Your task to perform on an android device: Look up the best rated hair dryer on Walmart. Image 0: 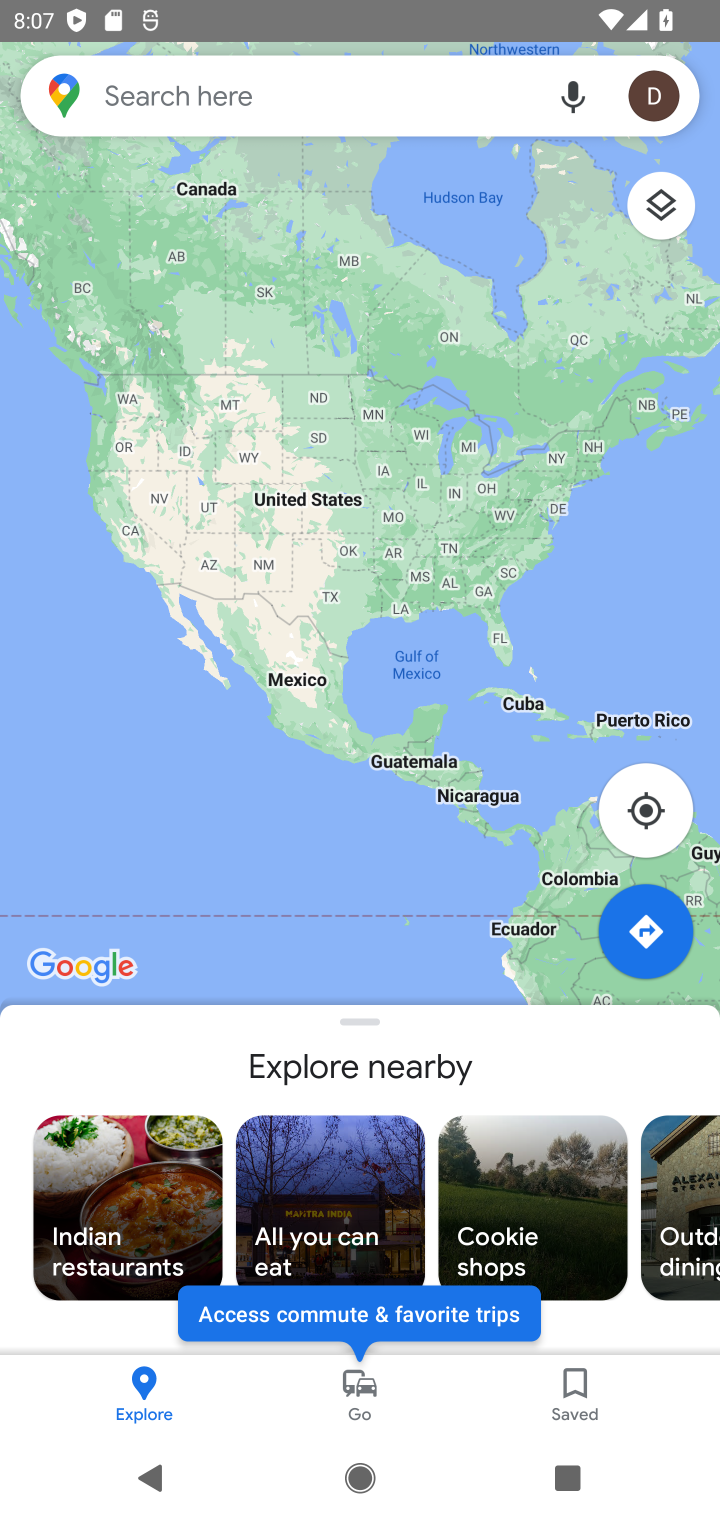
Step 0: press home button
Your task to perform on an android device: Look up the best rated hair dryer on Walmart. Image 1: 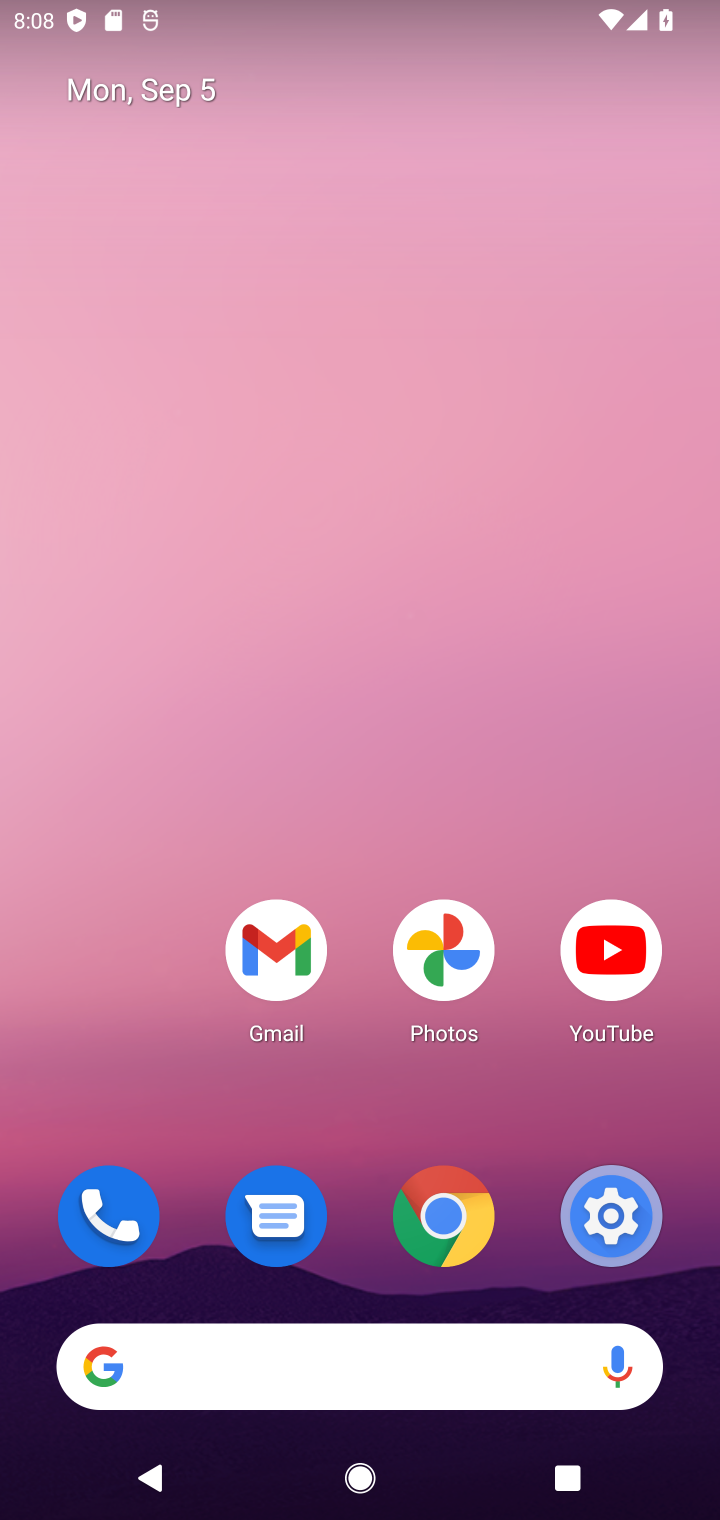
Step 1: click (239, 1355)
Your task to perform on an android device: Look up the best rated hair dryer on Walmart. Image 2: 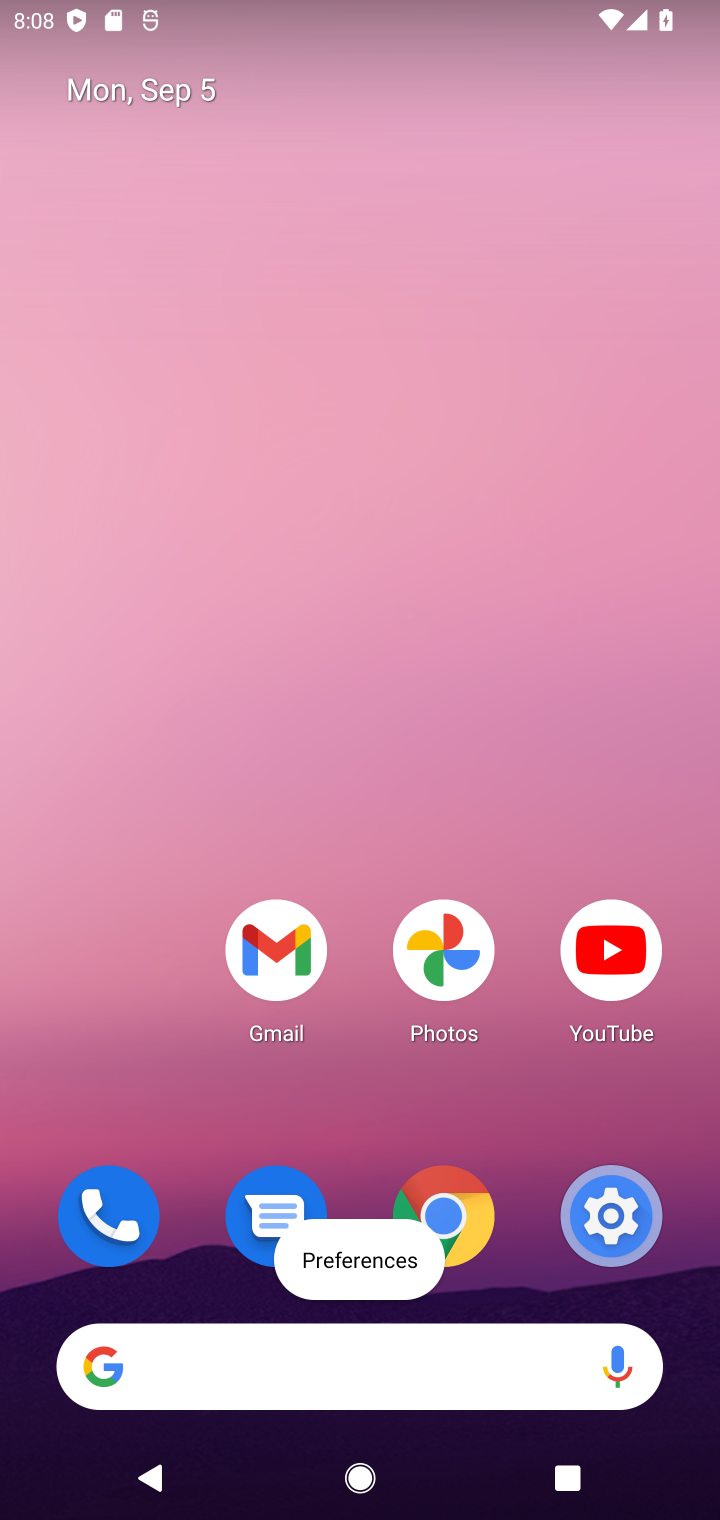
Step 2: click (239, 1355)
Your task to perform on an android device: Look up the best rated hair dryer on Walmart. Image 3: 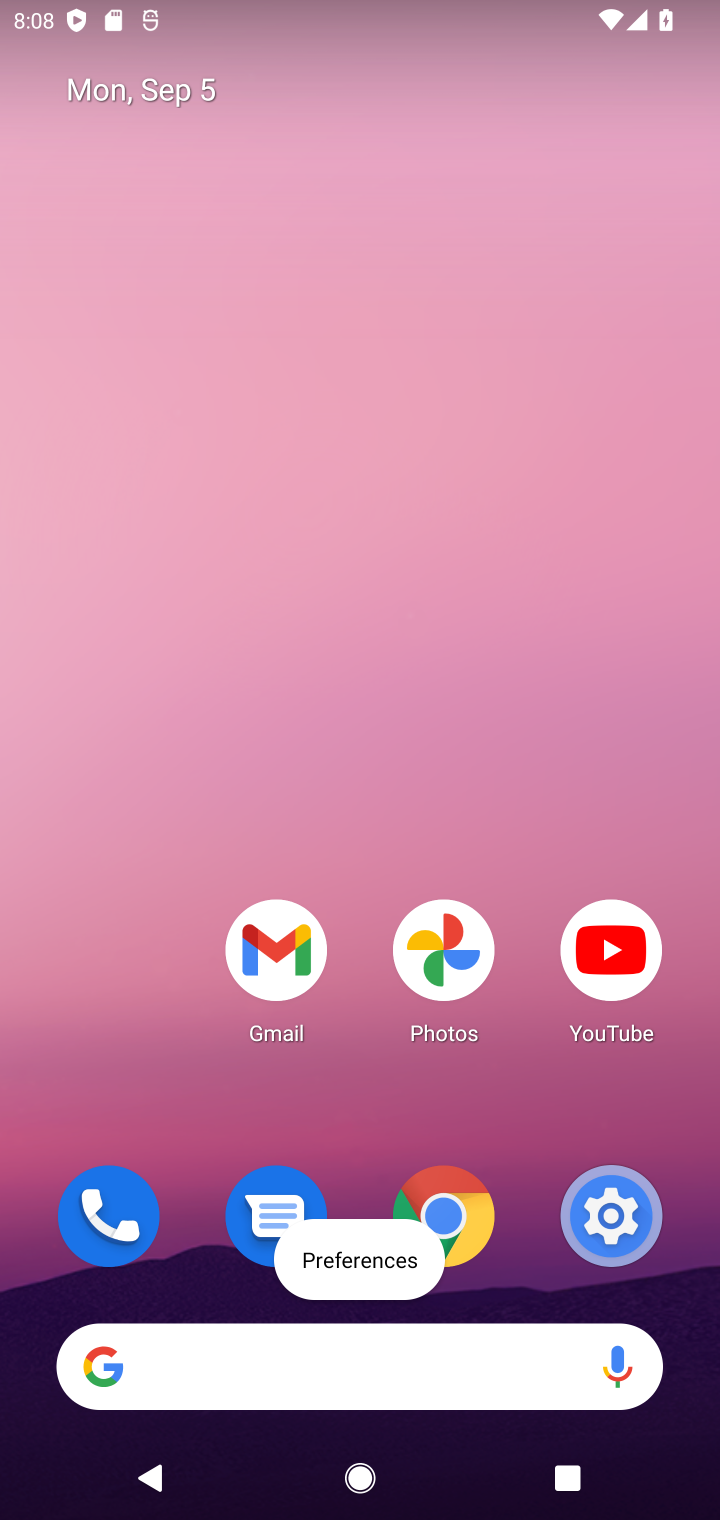
Step 3: click (239, 1355)
Your task to perform on an android device: Look up the best rated hair dryer on Walmart. Image 4: 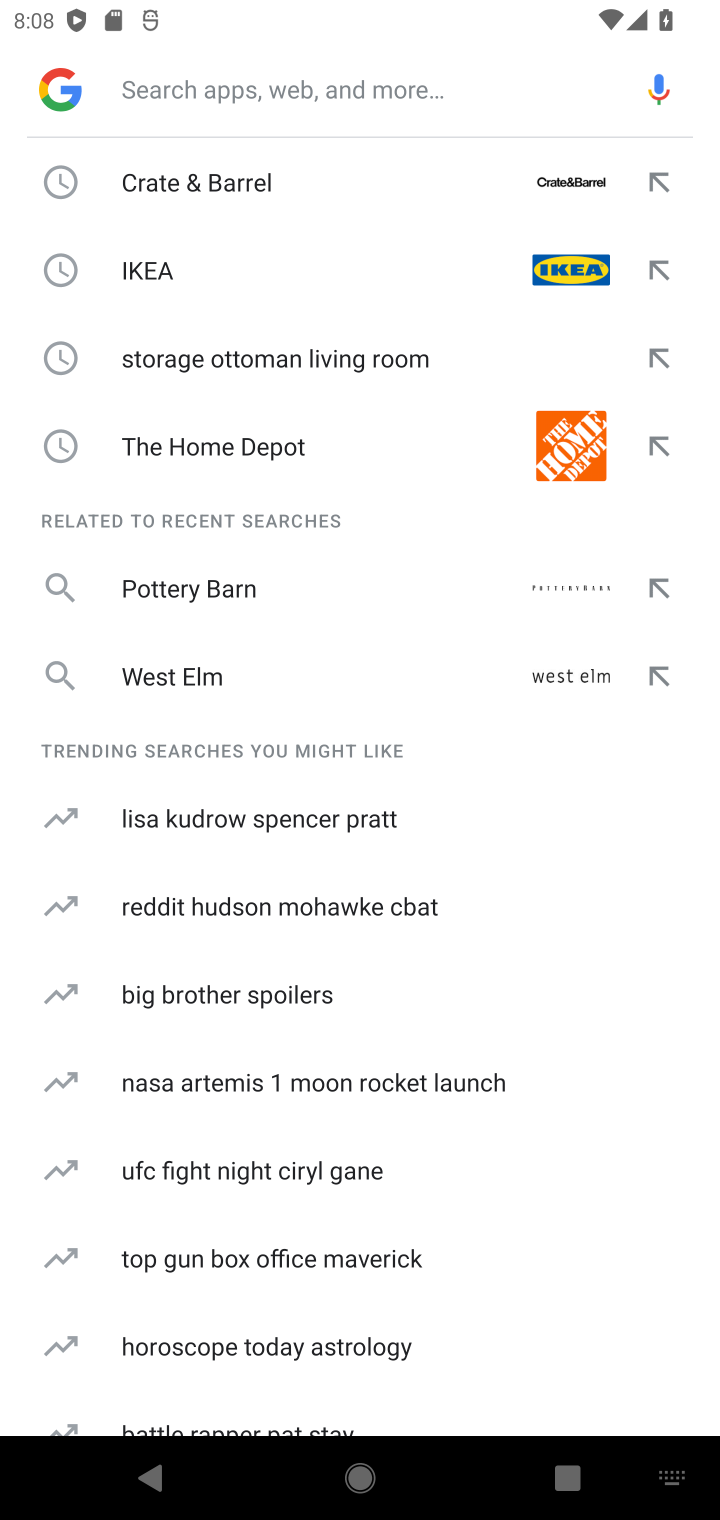
Step 4: click (239, 1355)
Your task to perform on an android device: Look up the best rated hair dryer on Walmart. Image 5: 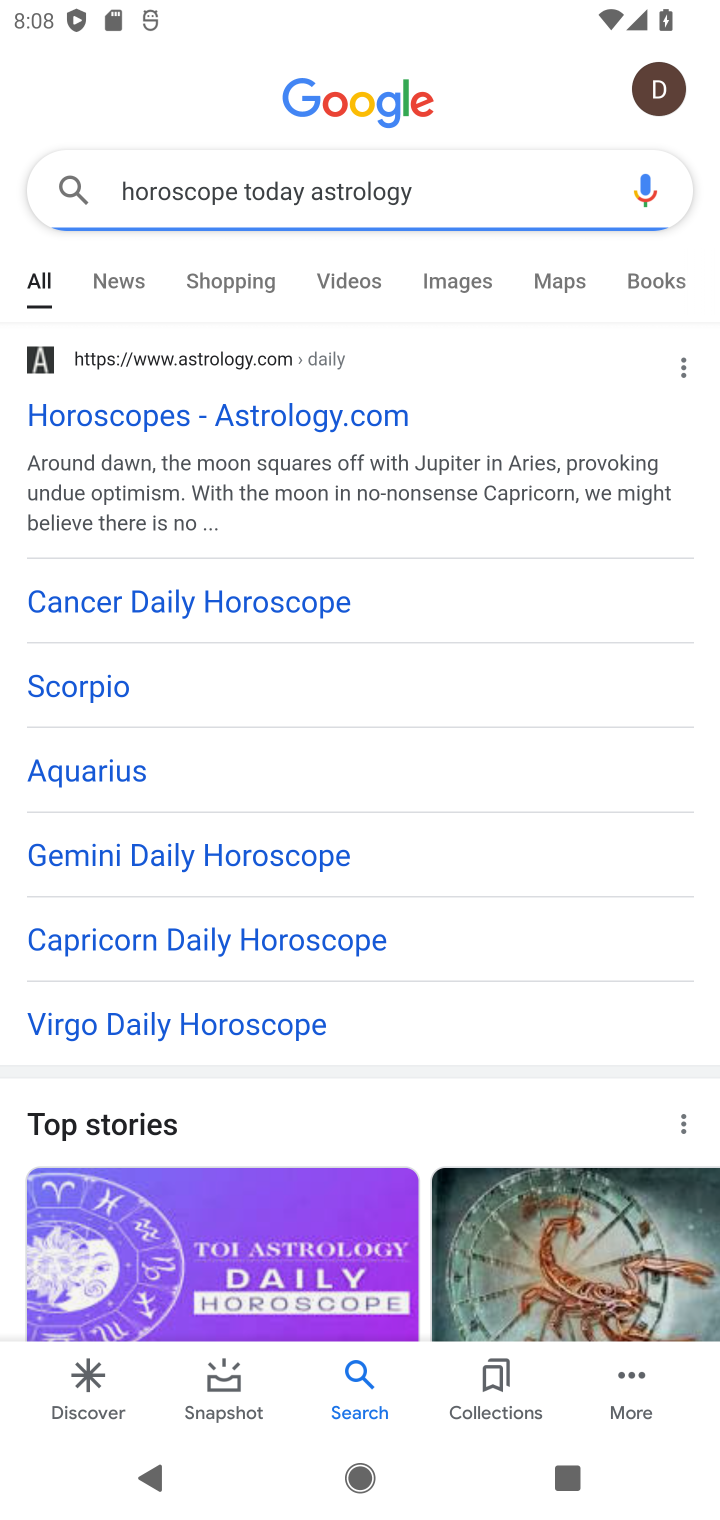
Step 5: click (480, 189)
Your task to perform on an android device: Look up the best rated hair dryer on Walmart. Image 6: 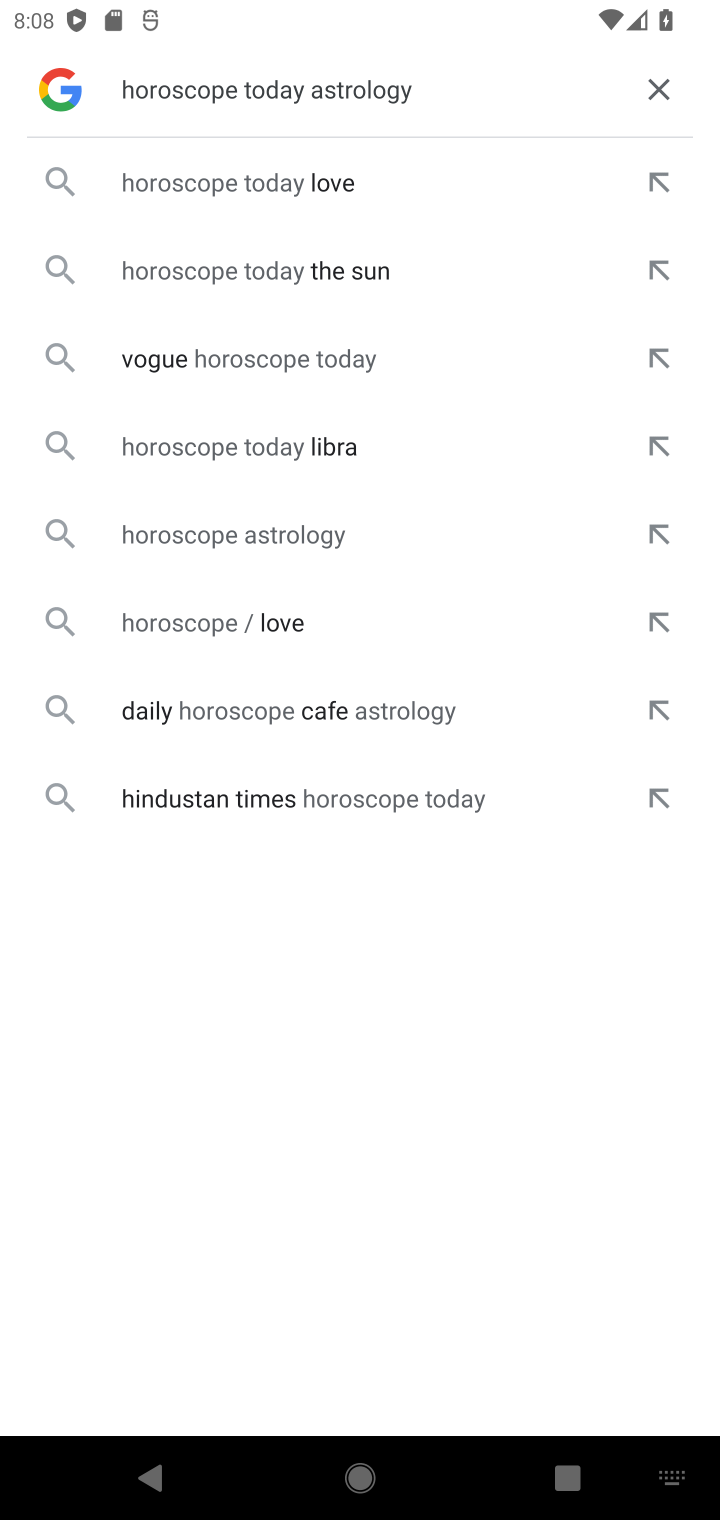
Step 6: click (664, 65)
Your task to perform on an android device: Look up the best rated hair dryer on Walmart. Image 7: 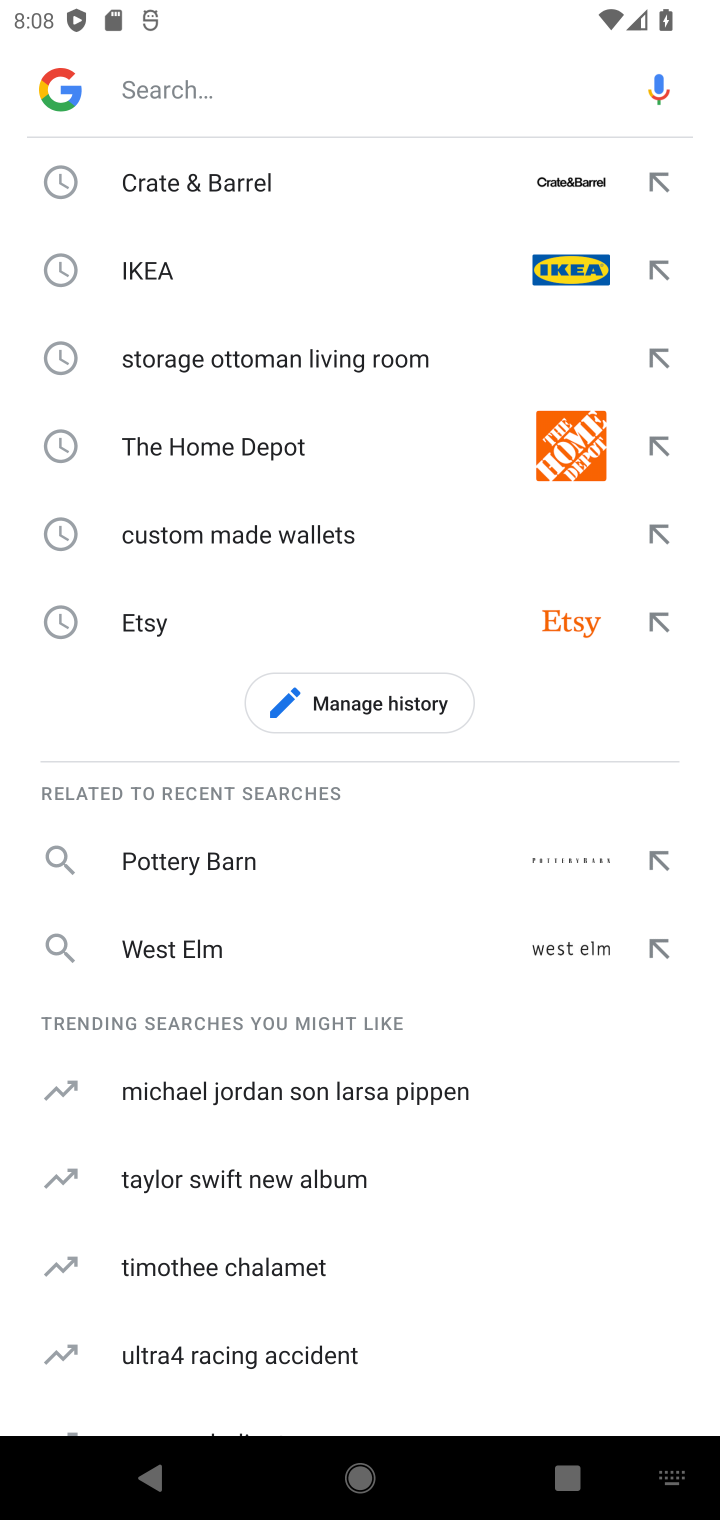
Step 7: type "walmart"
Your task to perform on an android device: Look up the best rated hair dryer on Walmart. Image 8: 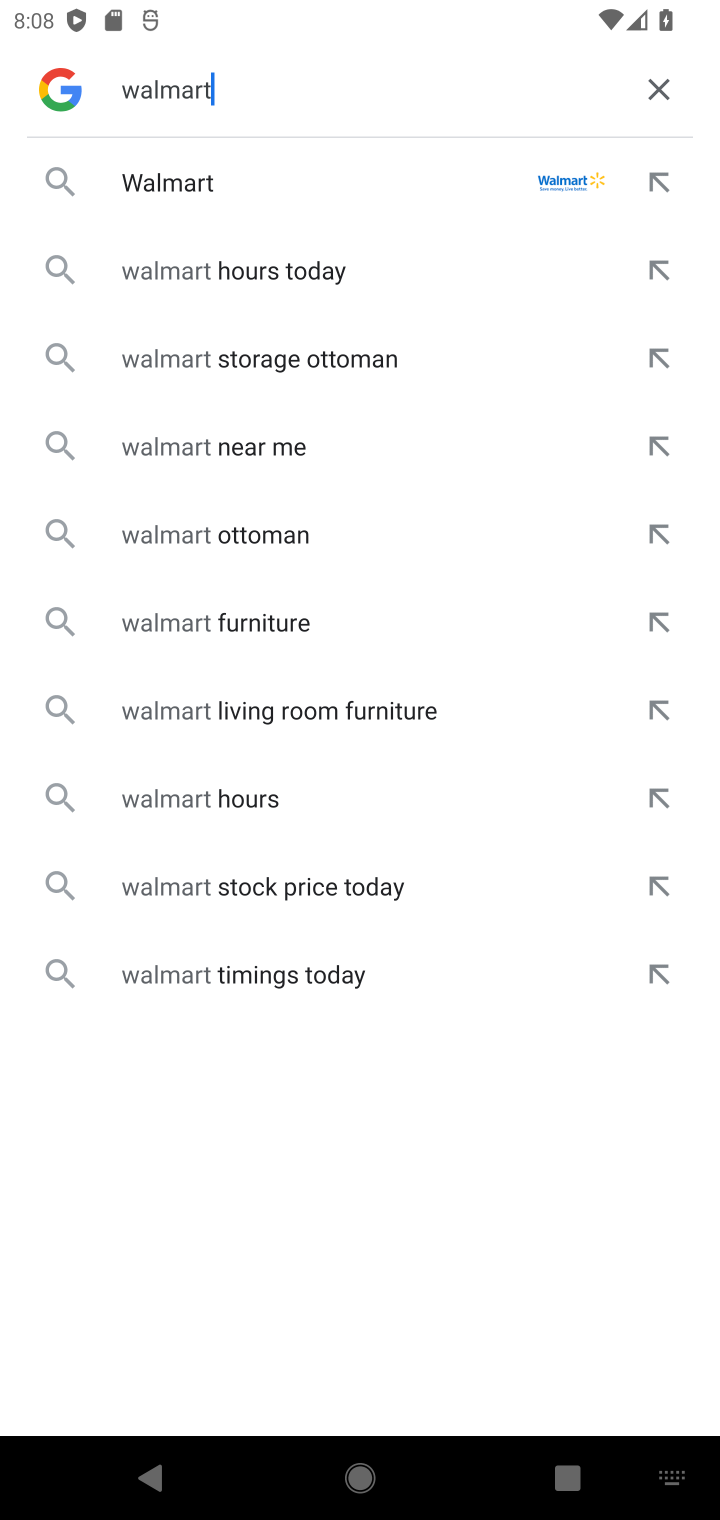
Step 8: click (85, 181)
Your task to perform on an android device: Look up the best rated hair dryer on Walmart. Image 9: 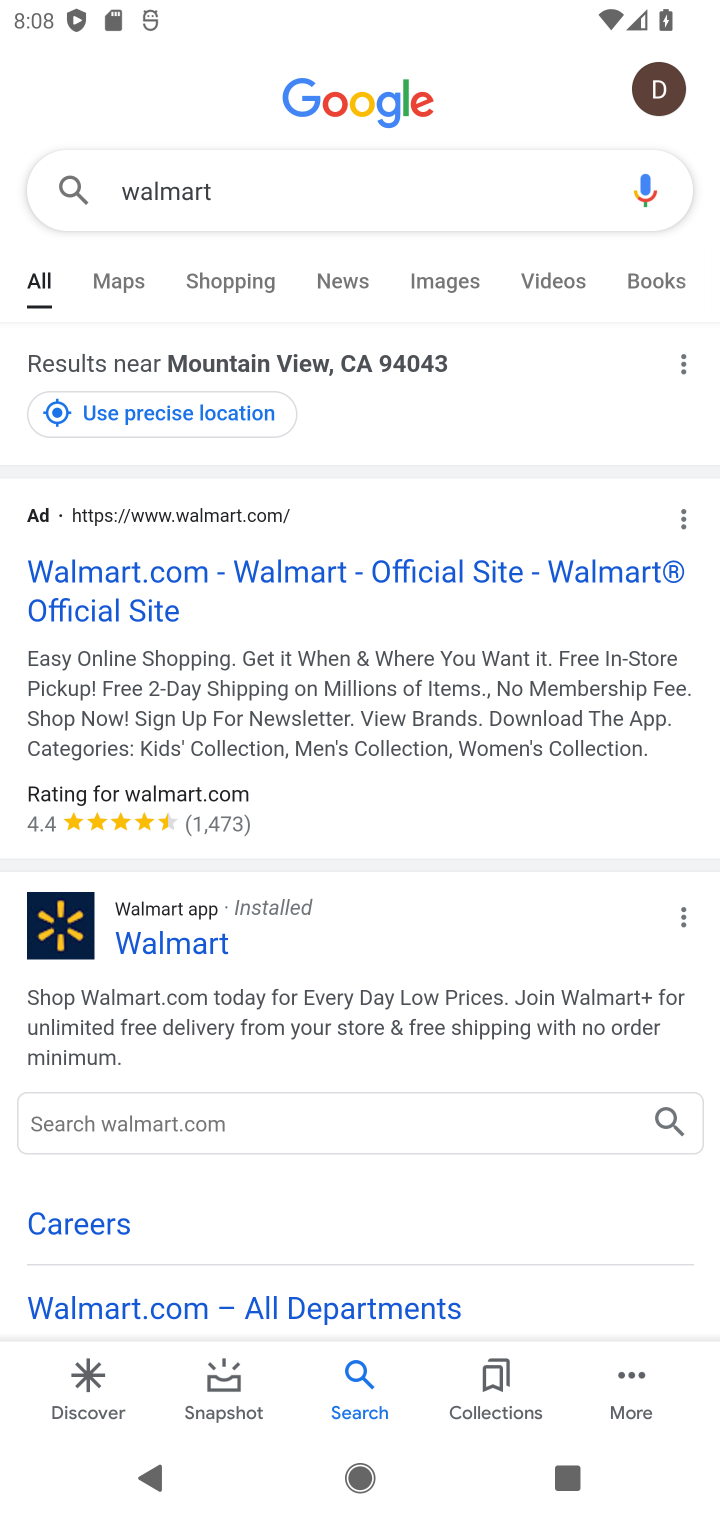
Step 9: click (174, 575)
Your task to perform on an android device: Look up the best rated hair dryer on Walmart. Image 10: 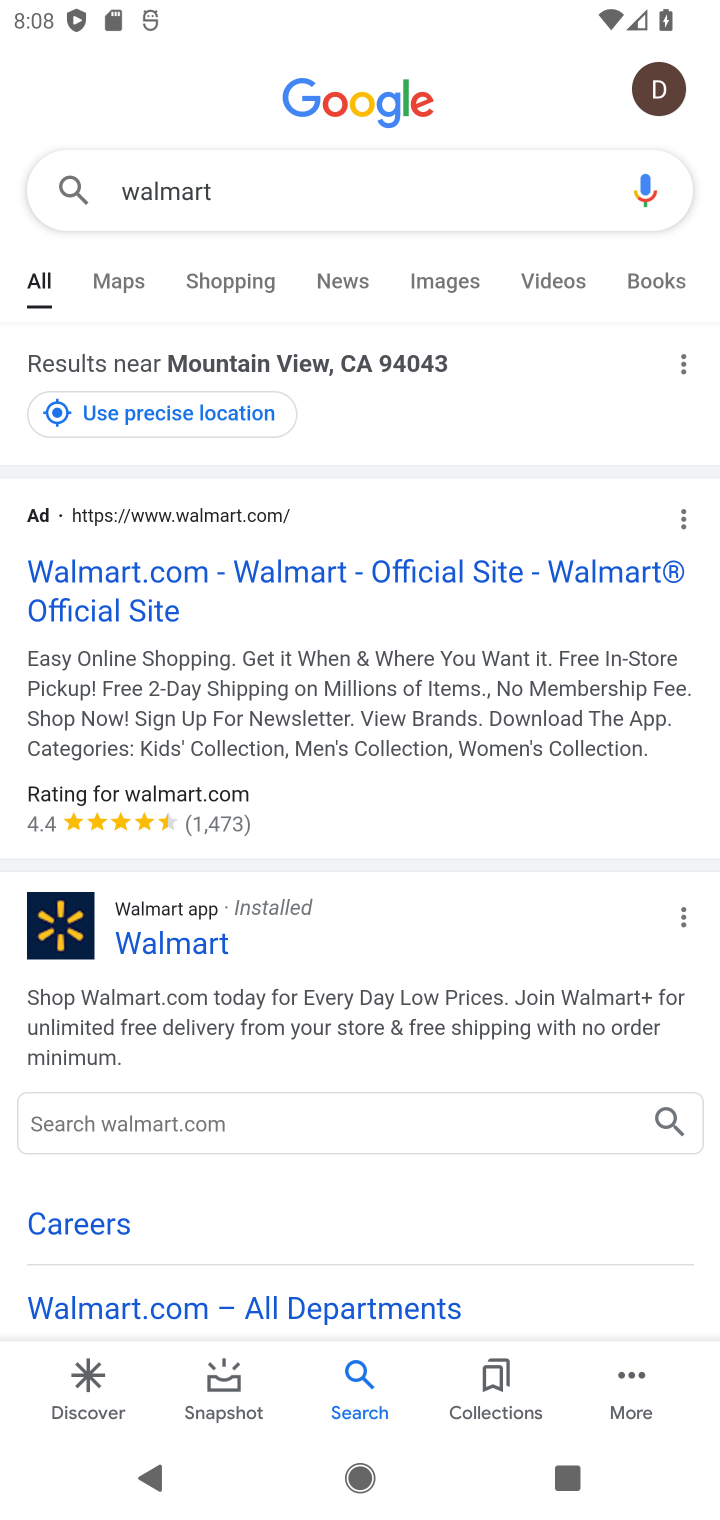
Step 10: click (316, 606)
Your task to perform on an android device: Look up the best rated hair dryer on Walmart. Image 11: 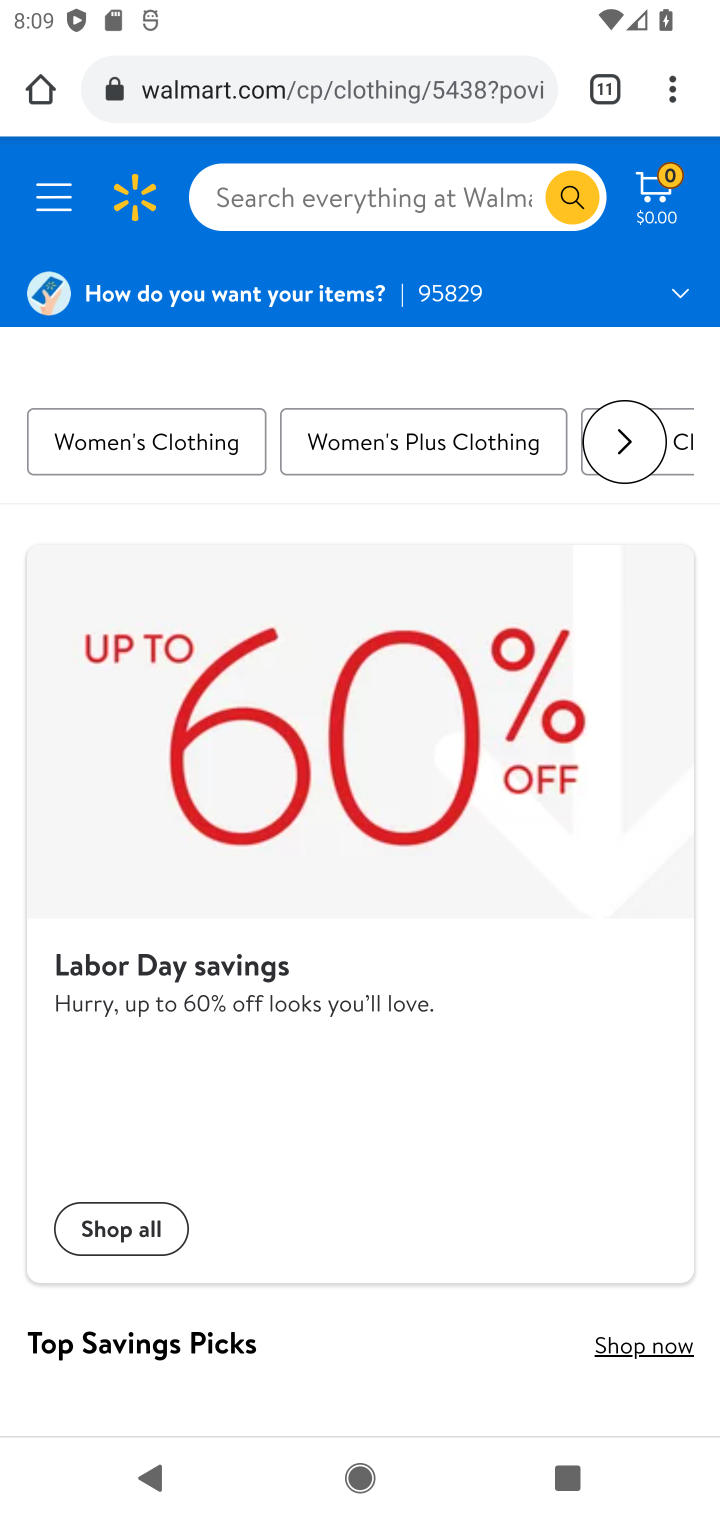
Step 11: click (318, 199)
Your task to perform on an android device: Look up the best rated hair dryer on Walmart. Image 12: 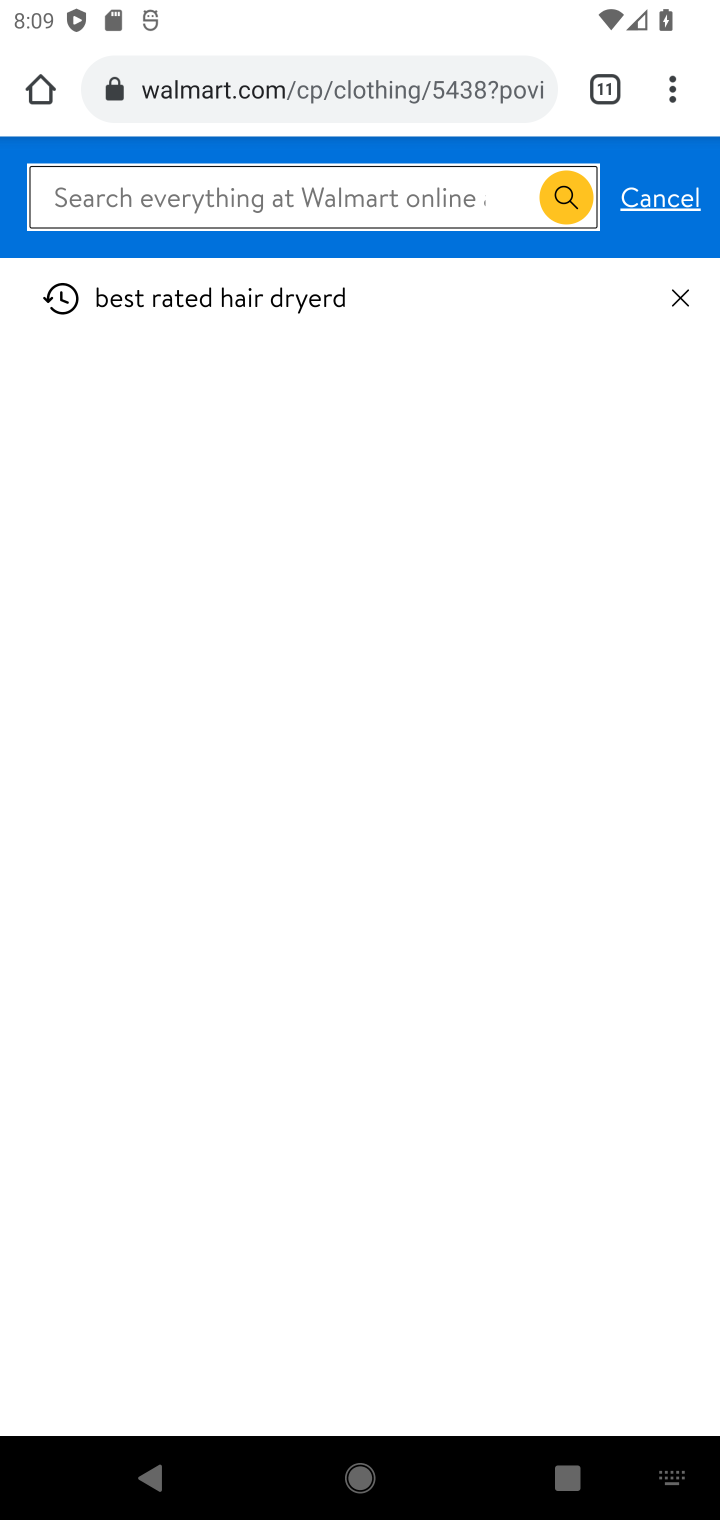
Step 12: type "hair dryer"
Your task to perform on an android device: Look up the best rated hair dryer on Walmart. Image 13: 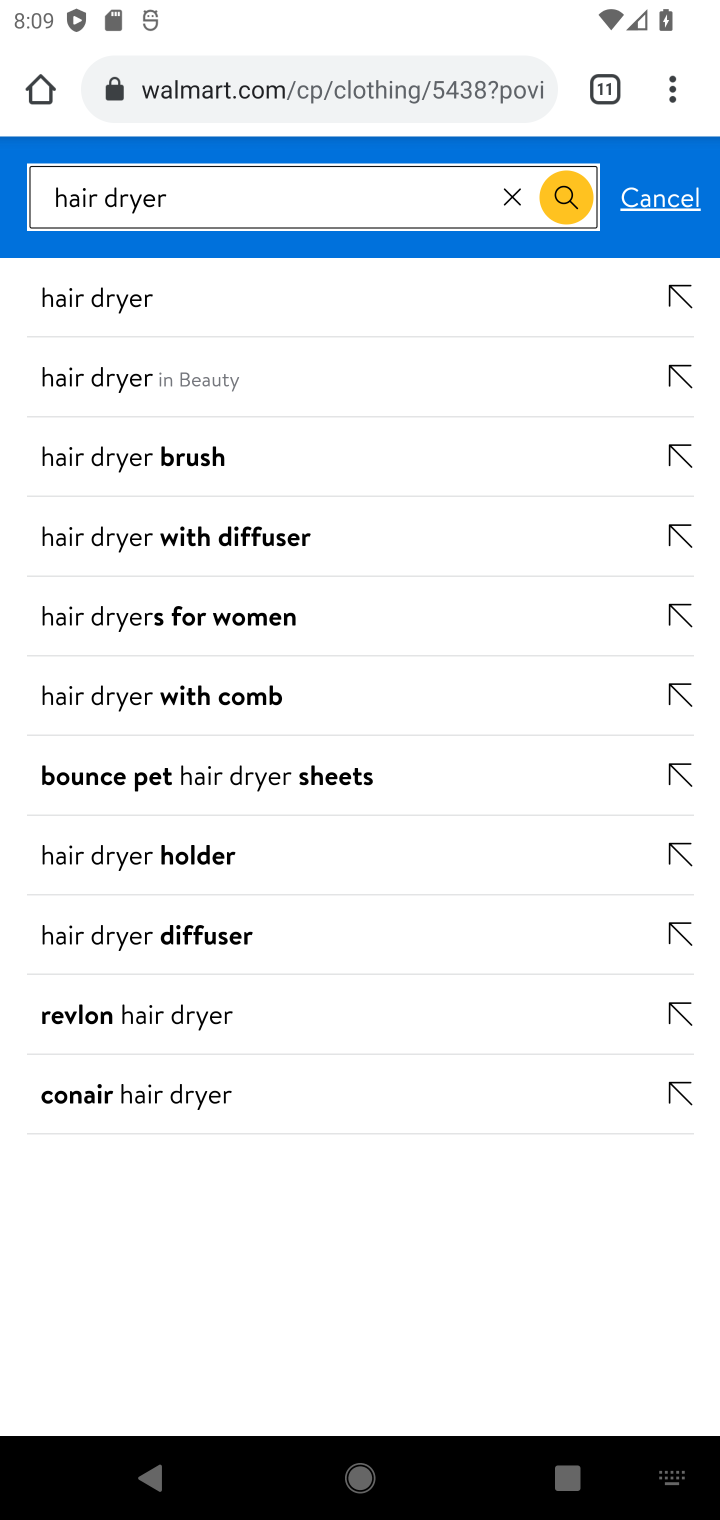
Step 13: click (214, 322)
Your task to perform on an android device: Look up the best rated hair dryer on Walmart. Image 14: 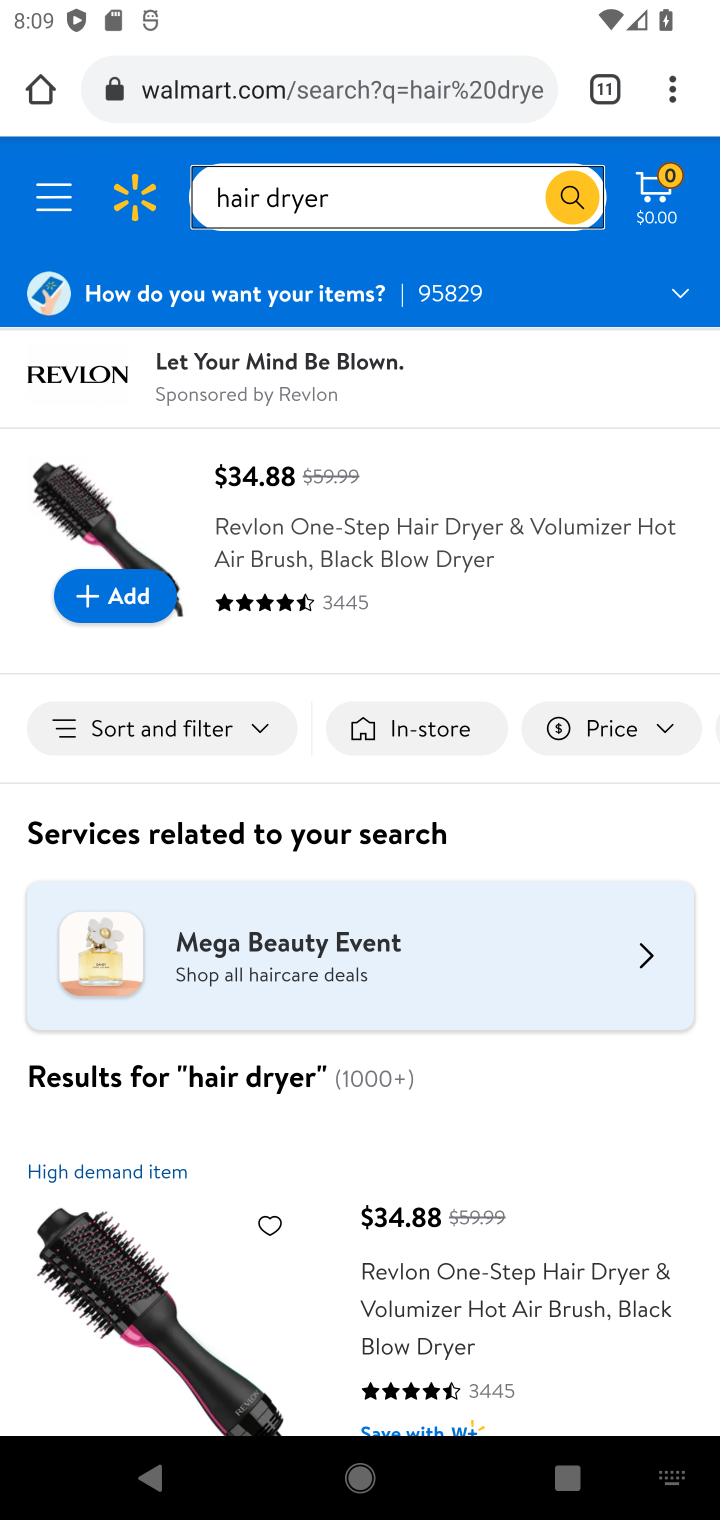
Step 14: task complete